Your task to perform on an android device: delete browsing data in the chrome app Image 0: 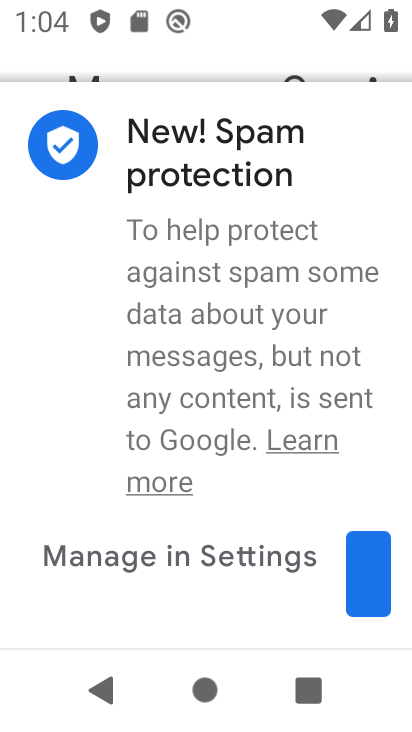
Step 0: press home button
Your task to perform on an android device: delete browsing data in the chrome app Image 1: 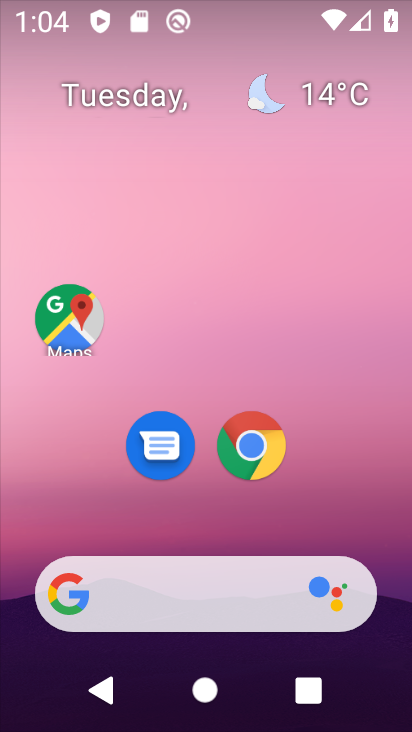
Step 1: drag from (373, 520) to (376, 92)
Your task to perform on an android device: delete browsing data in the chrome app Image 2: 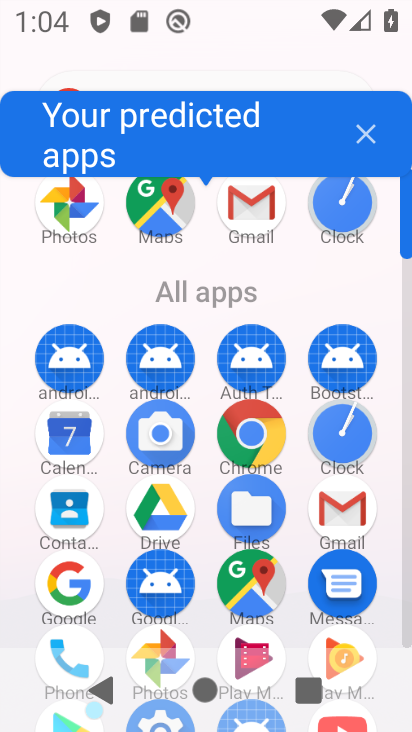
Step 2: click (258, 424)
Your task to perform on an android device: delete browsing data in the chrome app Image 3: 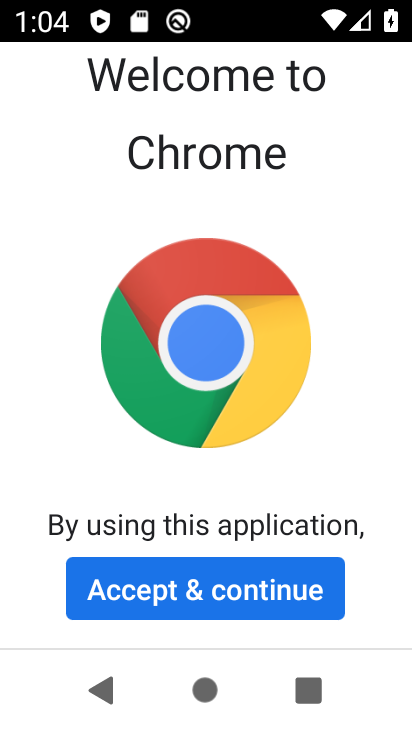
Step 3: click (255, 596)
Your task to perform on an android device: delete browsing data in the chrome app Image 4: 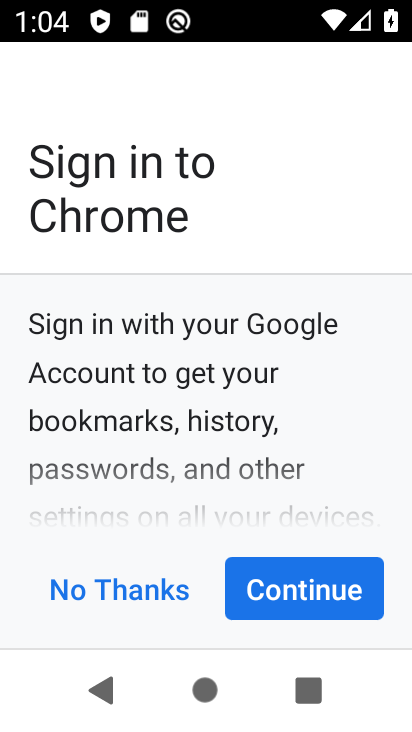
Step 4: click (275, 592)
Your task to perform on an android device: delete browsing data in the chrome app Image 5: 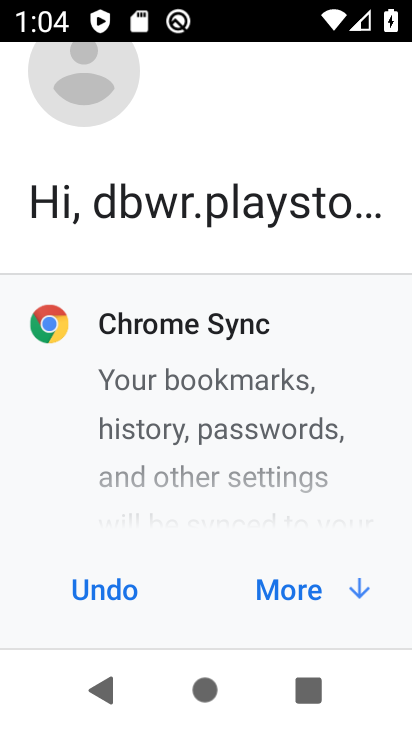
Step 5: click (286, 590)
Your task to perform on an android device: delete browsing data in the chrome app Image 6: 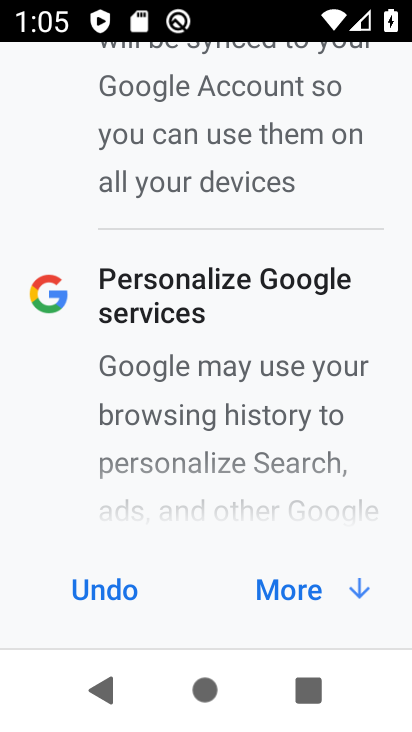
Step 6: click (285, 596)
Your task to perform on an android device: delete browsing data in the chrome app Image 7: 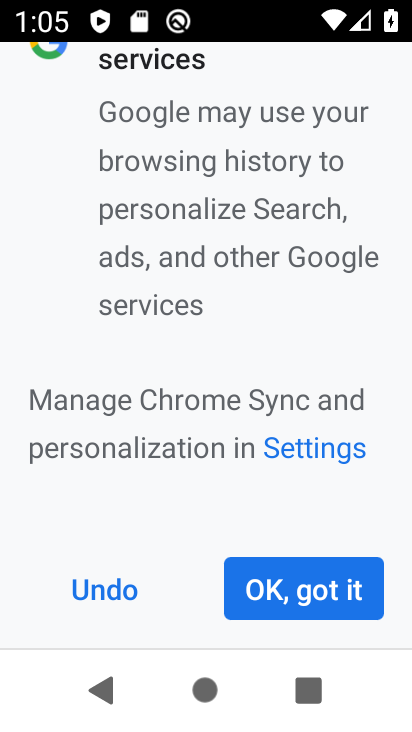
Step 7: click (299, 573)
Your task to perform on an android device: delete browsing data in the chrome app Image 8: 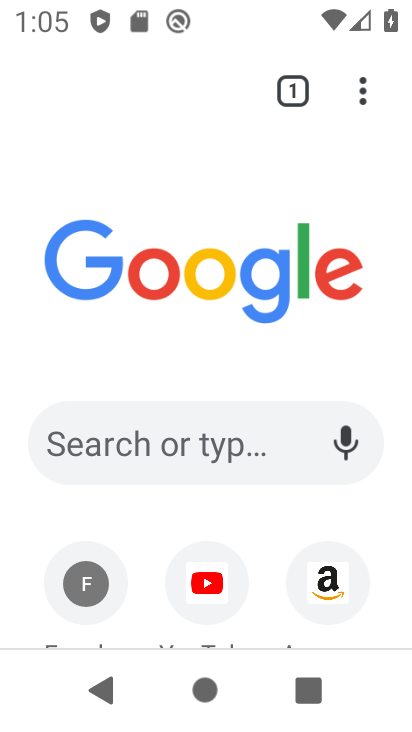
Step 8: click (362, 98)
Your task to perform on an android device: delete browsing data in the chrome app Image 9: 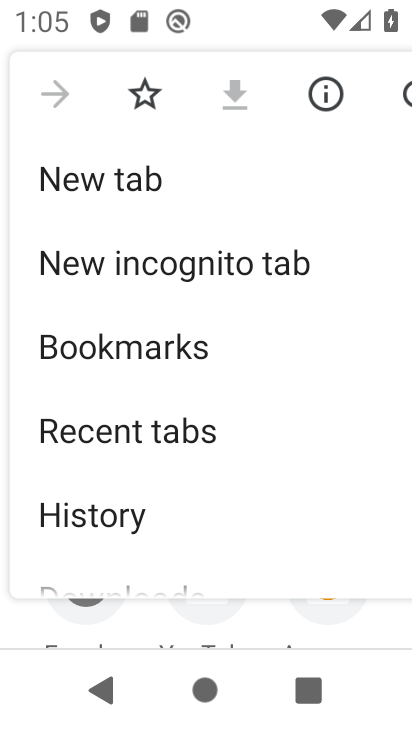
Step 9: drag from (313, 398) to (322, 307)
Your task to perform on an android device: delete browsing data in the chrome app Image 10: 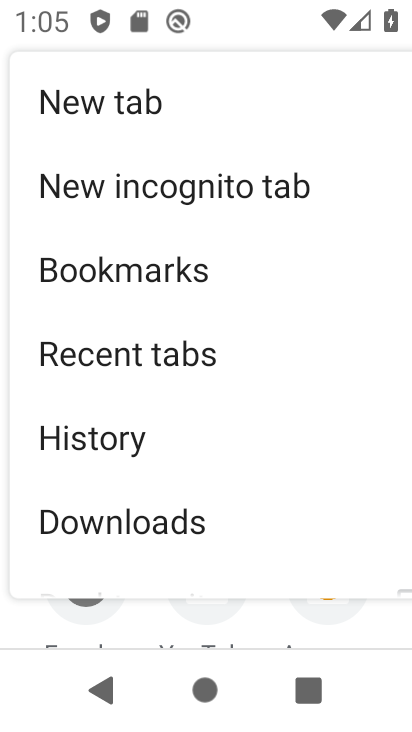
Step 10: drag from (314, 436) to (314, 306)
Your task to perform on an android device: delete browsing data in the chrome app Image 11: 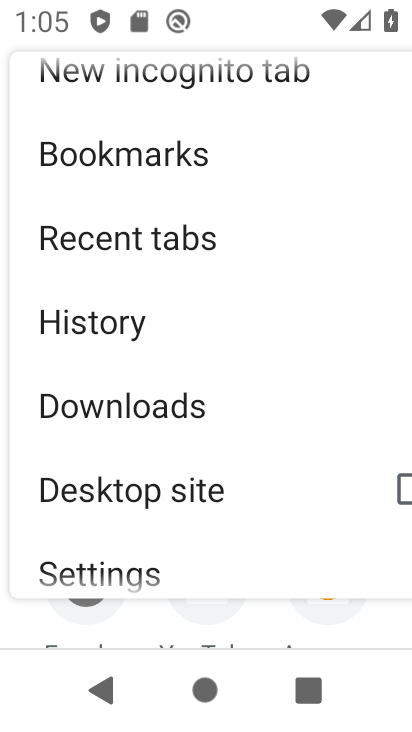
Step 11: drag from (304, 464) to (339, 165)
Your task to perform on an android device: delete browsing data in the chrome app Image 12: 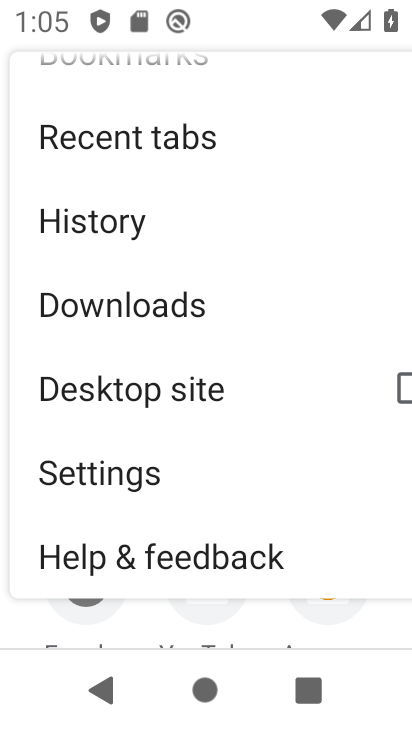
Step 12: click (154, 476)
Your task to perform on an android device: delete browsing data in the chrome app Image 13: 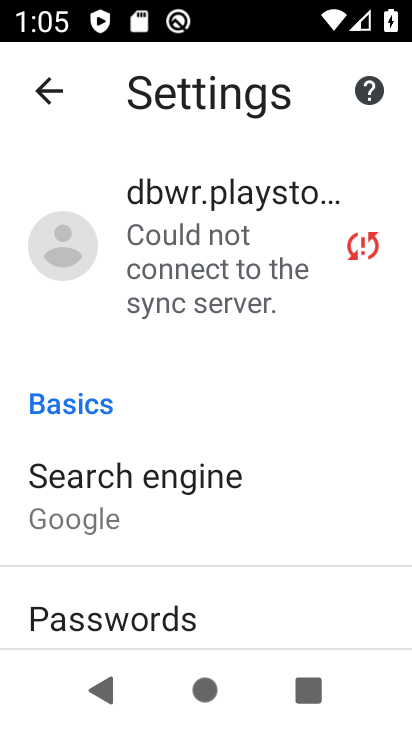
Step 13: drag from (341, 485) to (366, 269)
Your task to perform on an android device: delete browsing data in the chrome app Image 14: 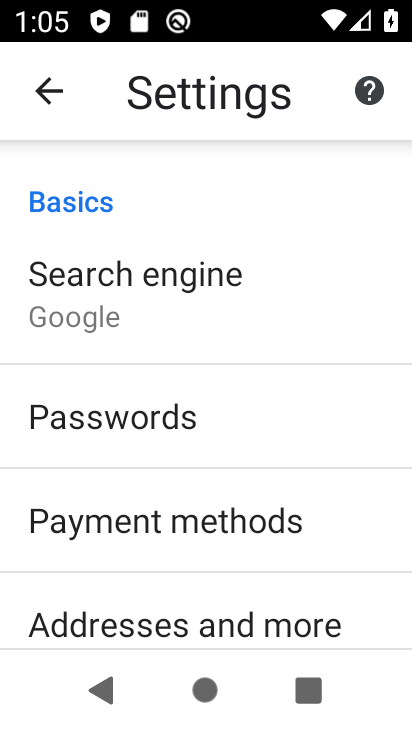
Step 14: drag from (339, 502) to (372, 249)
Your task to perform on an android device: delete browsing data in the chrome app Image 15: 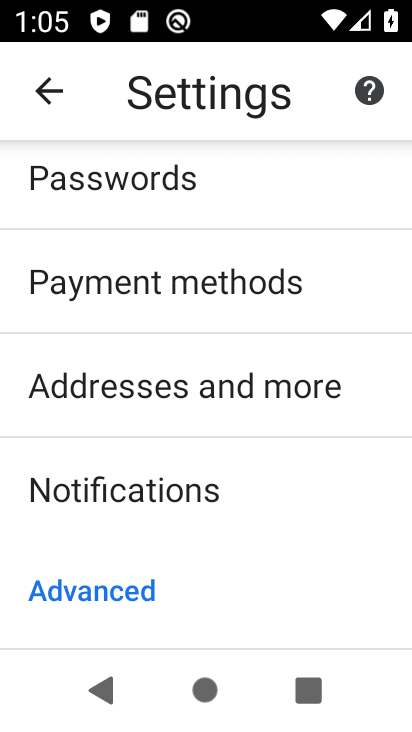
Step 15: drag from (309, 525) to (336, 269)
Your task to perform on an android device: delete browsing data in the chrome app Image 16: 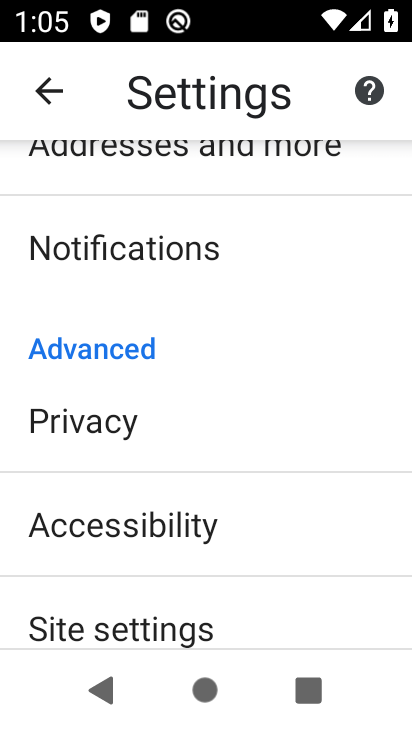
Step 16: drag from (329, 434) to (353, 315)
Your task to perform on an android device: delete browsing data in the chrome app Image 17: 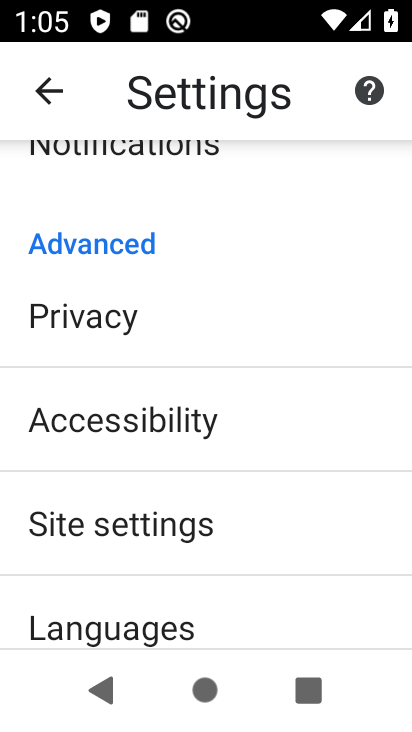
Step 17: click (152, 326)
Your task to perform on an android device: delete browsing data in the chrome app Image 18: 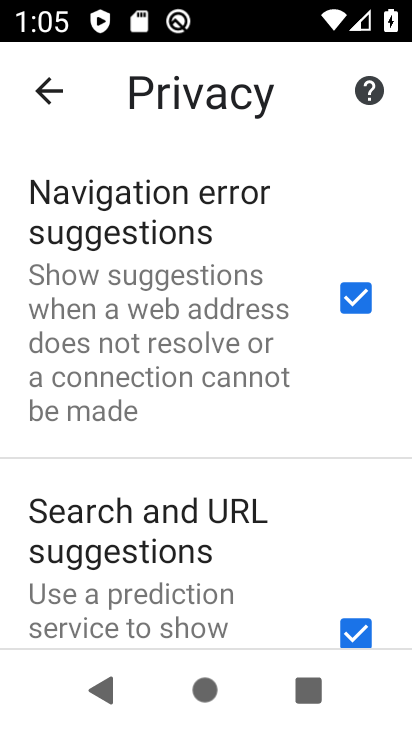
Step 18: drag from (180, 479) to (221, 256)
Your task to perform on an android device: delete browsing data in the chrome app Image 19: 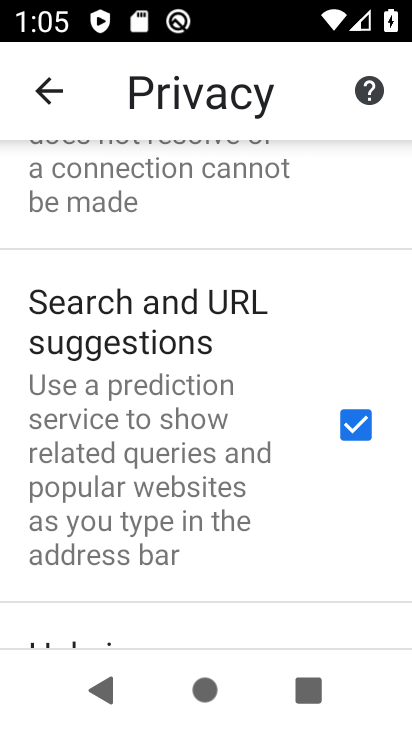
Step 19: drag from (263, 551) to (289, 335)
Your task to perform on an android device: delete browsing data in the chrome app Image 20: 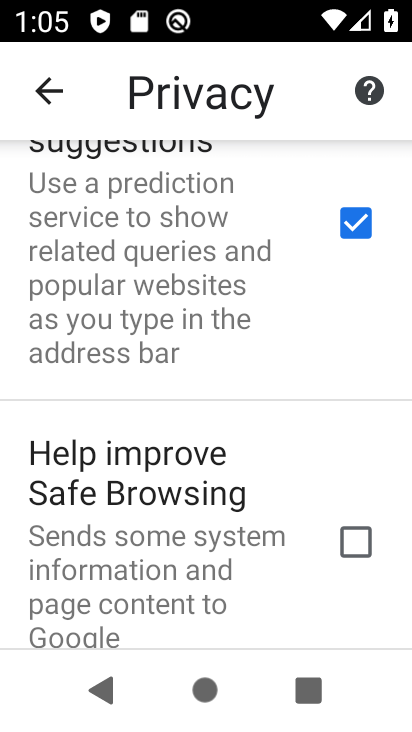
Step 20: drag from (286, 535) to (298, 332)
Your task to perform on an android device: delete browsing data in the chrome app Image 21: 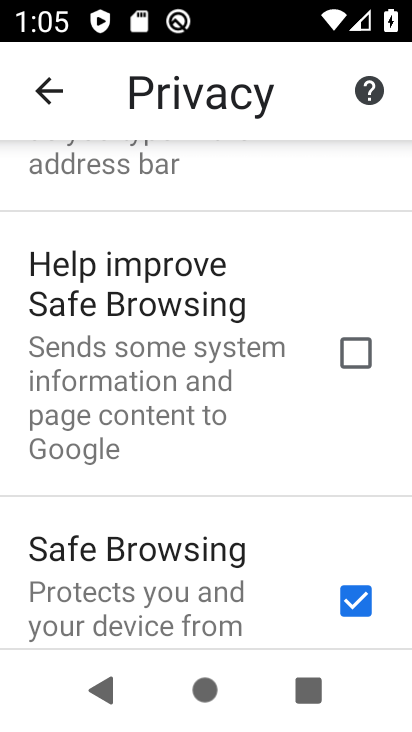
Step 21: drag from (294, 580) to (309, 321)
Your task to perform on an android device: delete browsing data in the chrome app Image 22: 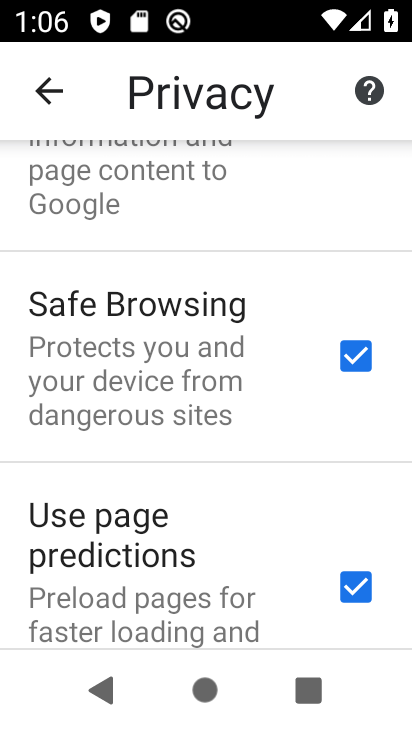
Step 22: drag from (271, 467) to (276, 267)
Your task to perform on an android device: delete browsing data in the chrome app Image 23: 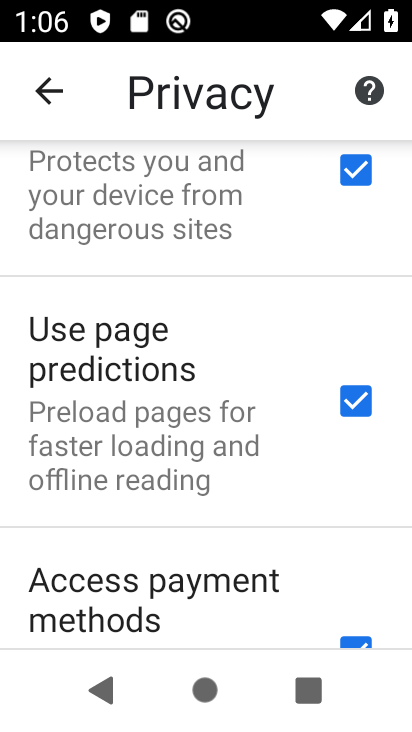
Step 23: drag from (253, 496) to (287, 247)
Your task to perform on an android device: delete browsing data in the chrome app Image 24: 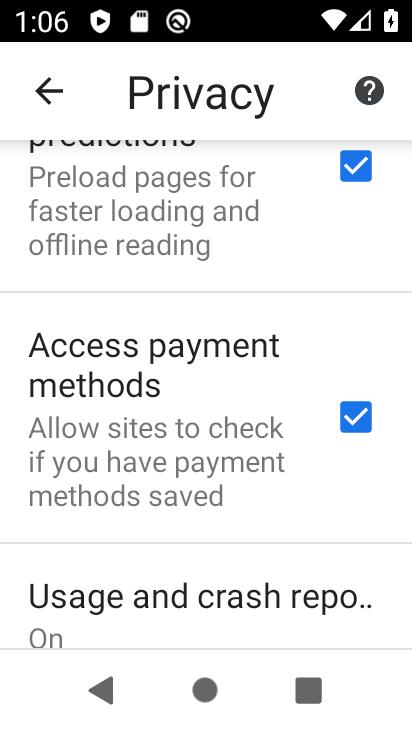
Step 24: drag from (271, 505) to (292, 235)
Your task to perform on an android device: delete browsing data in the chrome app Image 25: 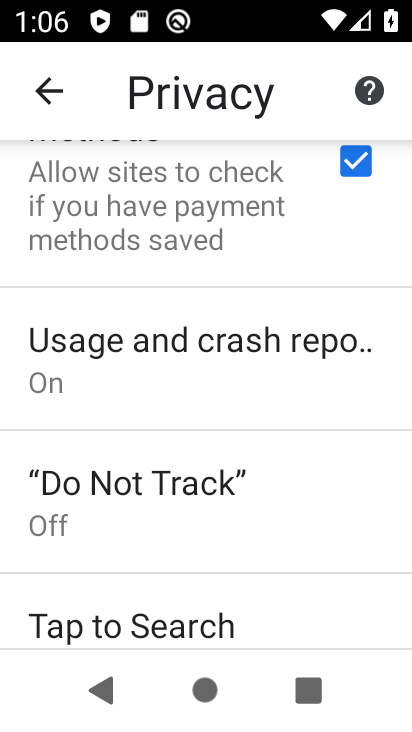
Step 25: drag from (274, 515) to (287, 268)
Your task to perform on an android device: delete browsing data in the chrome app Image 26: 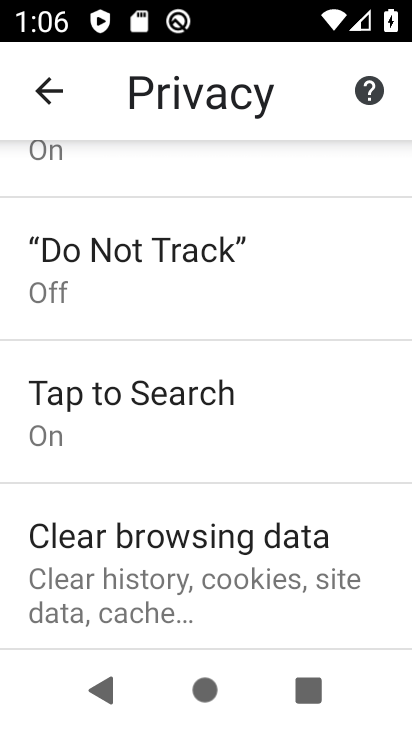
Step 26: click (193, 570)
Your task to perform on an android device: delete browsing data in the chrome app Image 27: 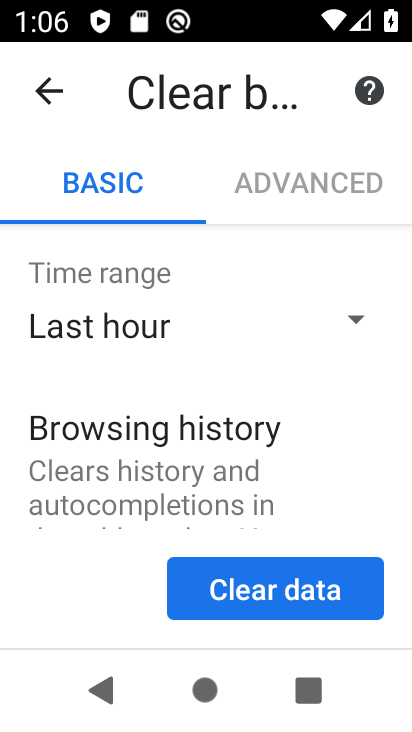
Step 27: click (287, 602)
Your task to perform on an android device: delete browsing data in the chrome app Image 28: 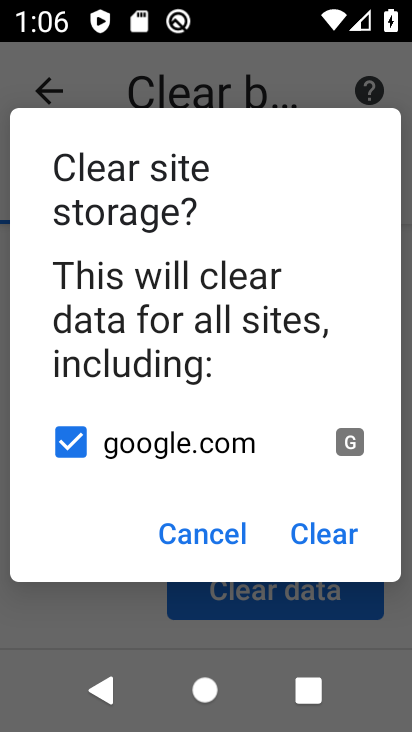
Step 28: click (297, 522)
Your task to perform on an android device: delete browsing data in the chrome app Image 29: 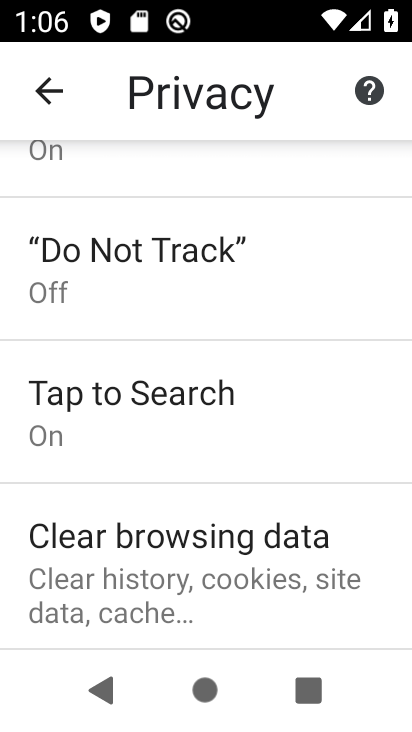
Step 29: task complete